Your task to perform on an android device: Open the map Image 0: 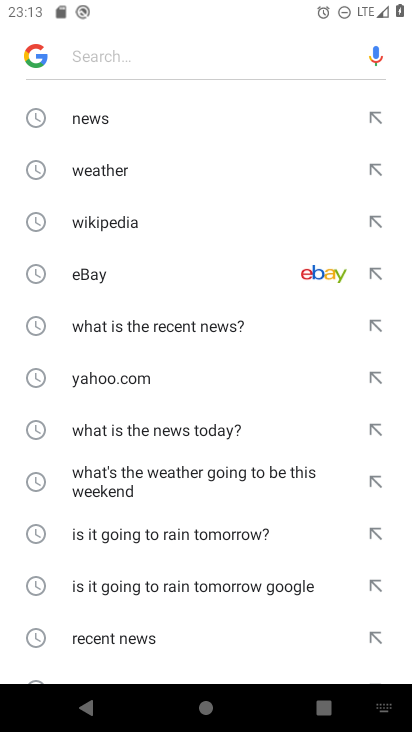
Step 0: press home button
Your task to perform on an android device: Open the map Image 1: 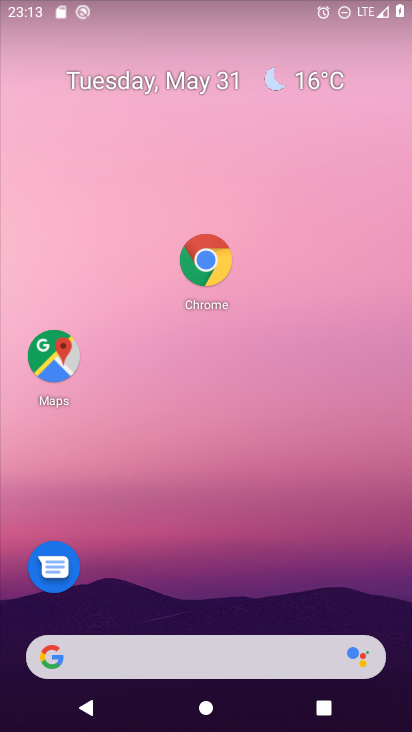
Step 1: click (57, 364)
Your task to perform on an android device: Open the map Image 2: 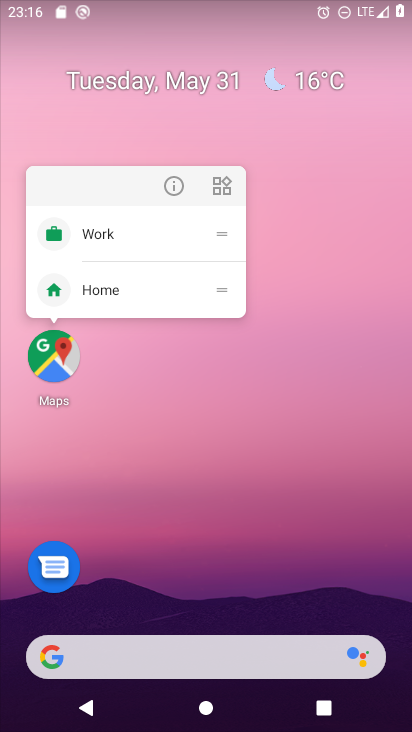
Step 2: click (33, 372)
Your task to perform on an android device: Open the map Image 3: 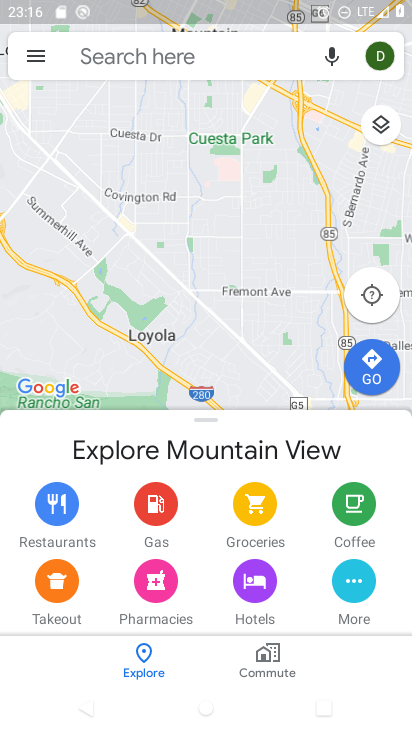
Step 3: task complete